Your task to perform on an android device: Find coffee shops on Maps Image 0: 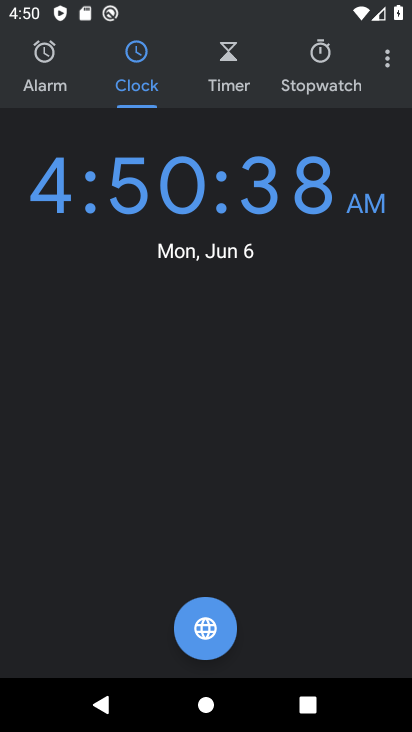
Step 0: press home button
Your task to perform on an android device: Find coffee shops on Maps Image 1: 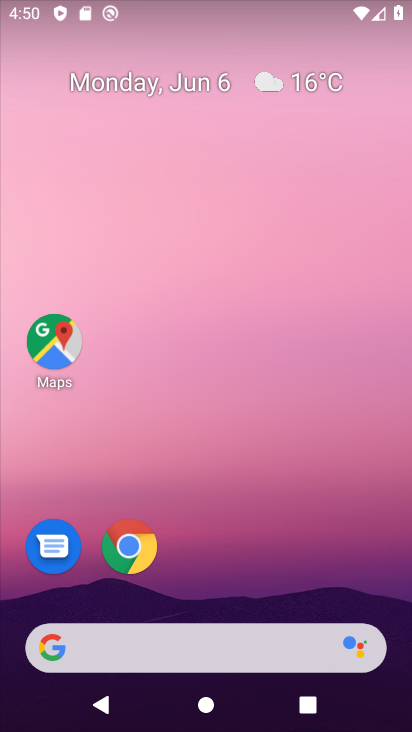
Step 1: drag from (144, 613) to (156, 20)
Your task to perform on an android device: Find coffee shops on Maps Image 2: 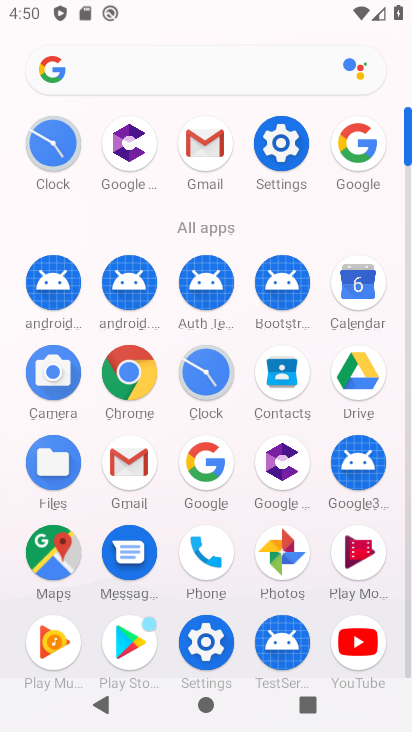
Step 2: click (66, 556)
Your task to perform on an android device: Find coffee shops on Maps Image 3: 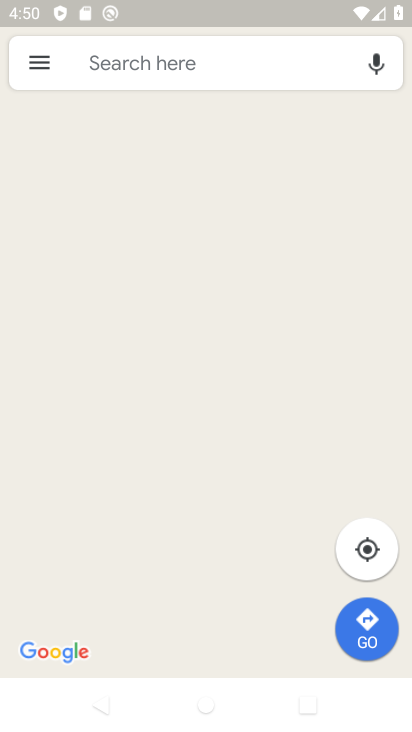
Step 3: click (145, 59)
Your task to perform on an android device: Find coffee shops on Maps Image 4: 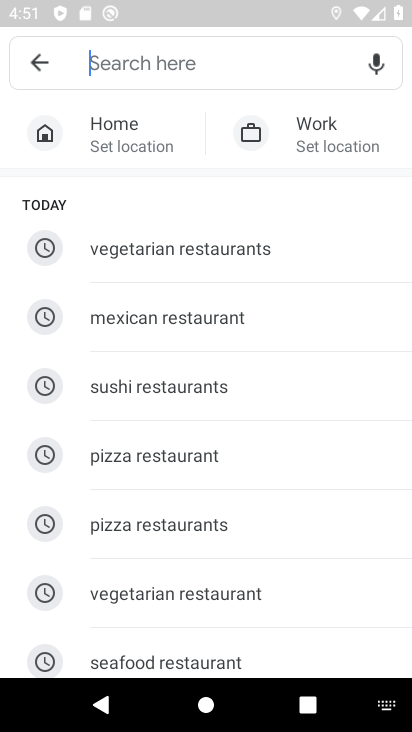
Step 4: drag from (163, 622) to (161, 215)
Your task to perform on an android device: Find coffee shops on Maps Image 5: 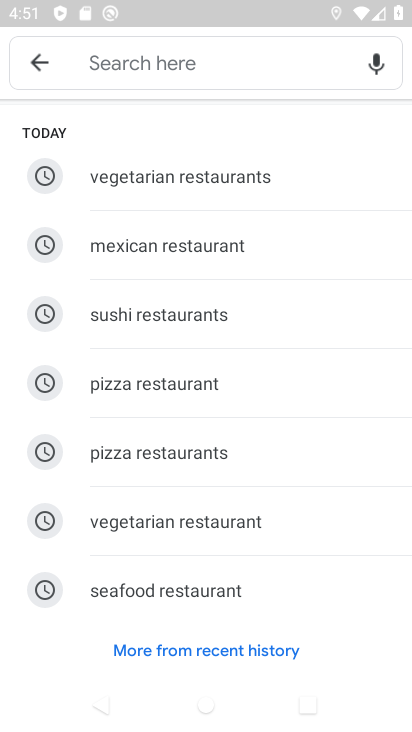
Step 5: click (201, 642)
Your task to perform on an android device: Find coffee shops on Maps Image 6: 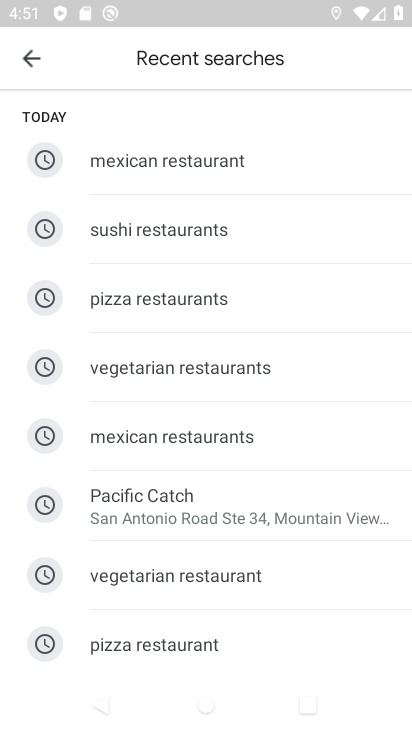
Step 6: type "coffee"
Your task to perform on an android device: Find coffee shops on Maps Image 7: 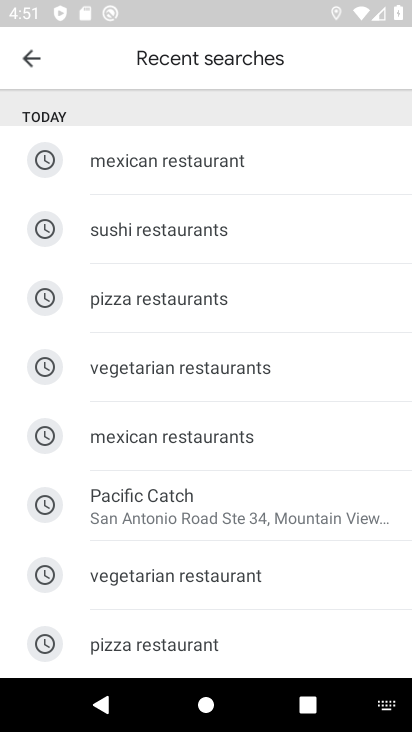
Step 7: drag from (190, 628) to (172, 259)
Your task to perform on an android device: Find coffee shops on Maps Image 8: 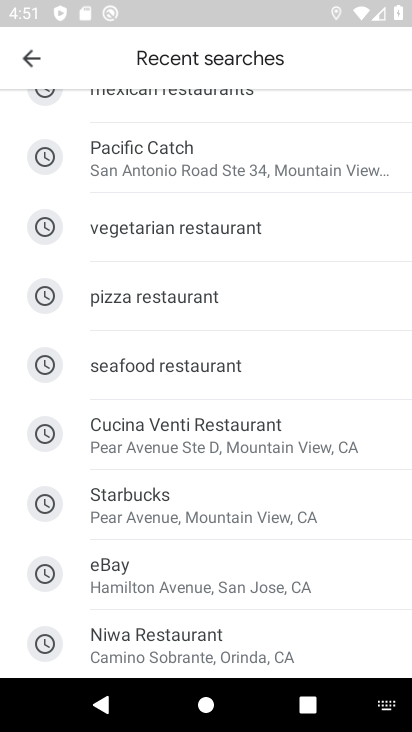
Step 8: drag from (163, 94) to (170, 500)
Your task to perform on an android device: Find coffee shops on Maps Image 9: 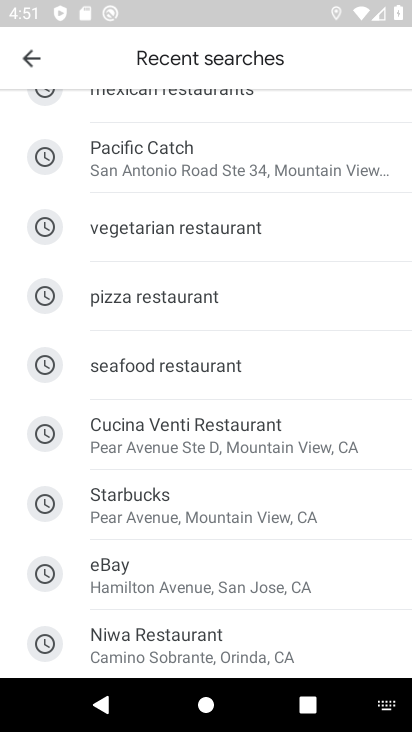
Step 9: click (33, 62)
Your task to perform on an android device: Find coffee shops on Maps Image 10: 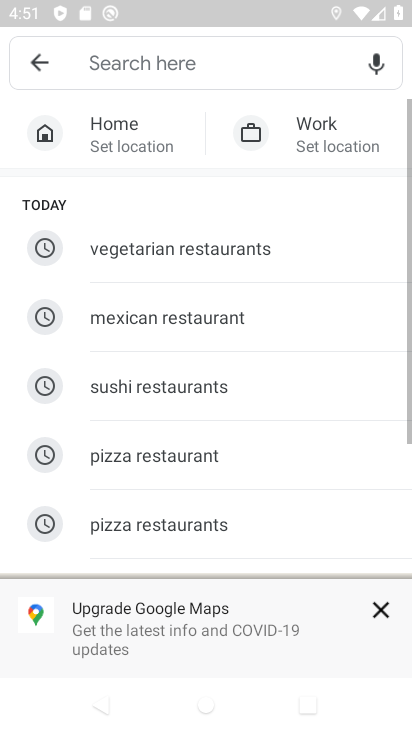
Step 10: click (86, 60)
Your task to perform on an android device: Find coffee shops on Maps Image 11: 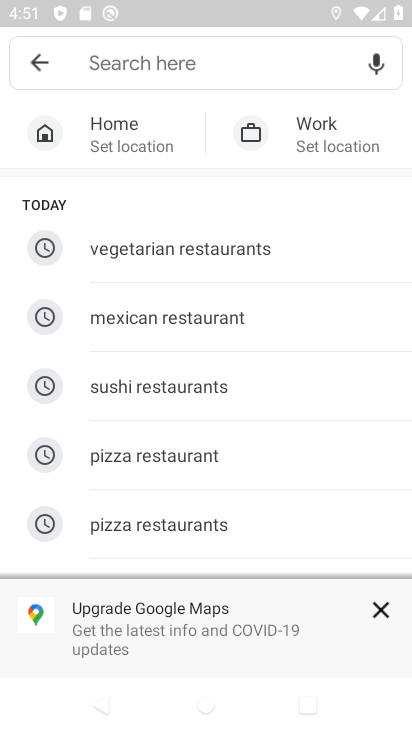
Step 11: type "coffee"
Your task to perform on an android device: Find coffee shops on Maps Image 12: 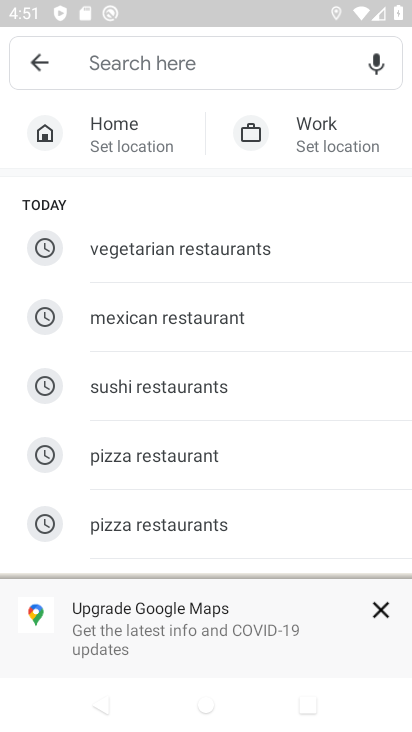
Step 12: click (131, 55)
Your task to perform on an android device: Find coffee shops on Maps Image 13: 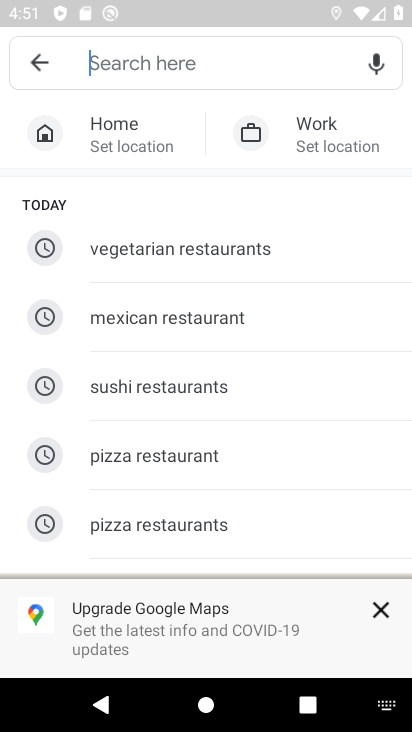
Step 13: type "coffee"
Your task to perform on an android device: Find coffee shops on Maps Image 14: 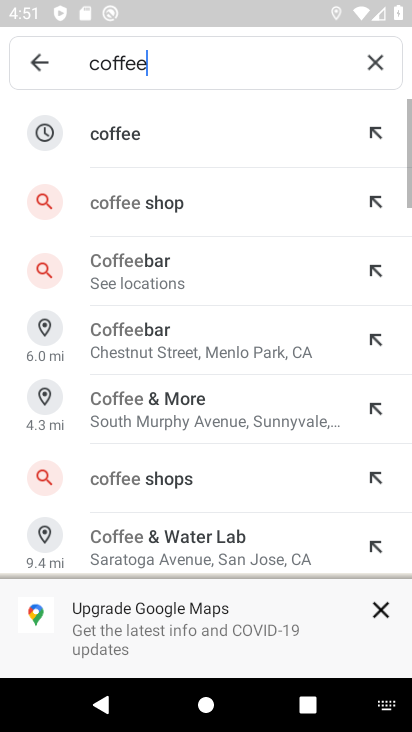
Step 14: click (145, 134)
Your task to perform on an android device: Find coffee shops on Maps Image 15: 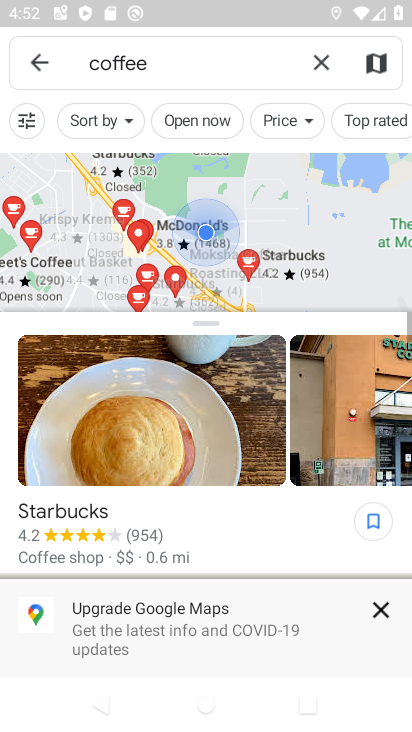
Step 15: task complete